Your task to perform on an android device: toggle airplane mode Image 0: 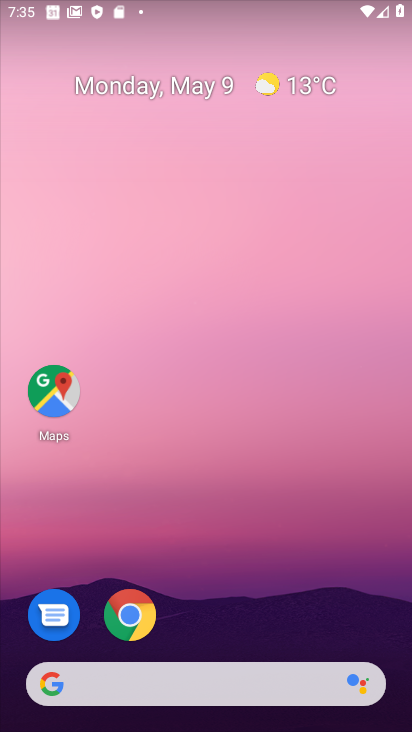
Step 0: click (138, 682)
Your task to perform on an android device: toggle airplane mode Image 1: 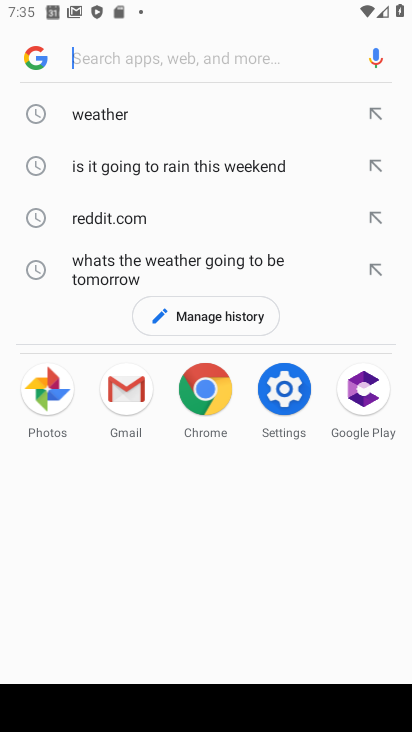
Step 1: click (34, 64)
Your task to perform on an android device: toggle airplane mode Image 2: 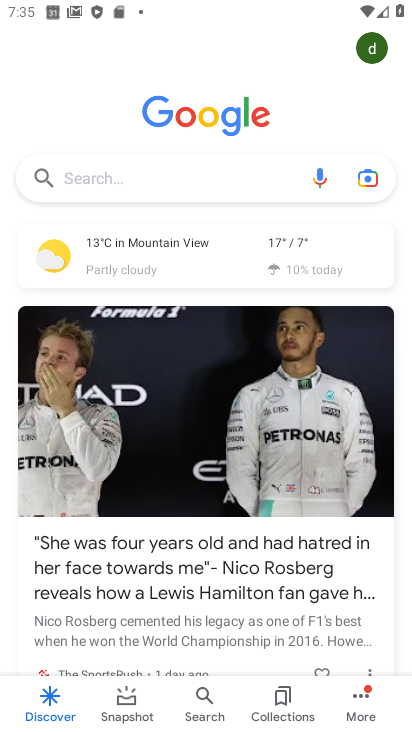
Step 2: task complete